Your task to perform on an android device: Show me popular games on the Play Store Image 0: 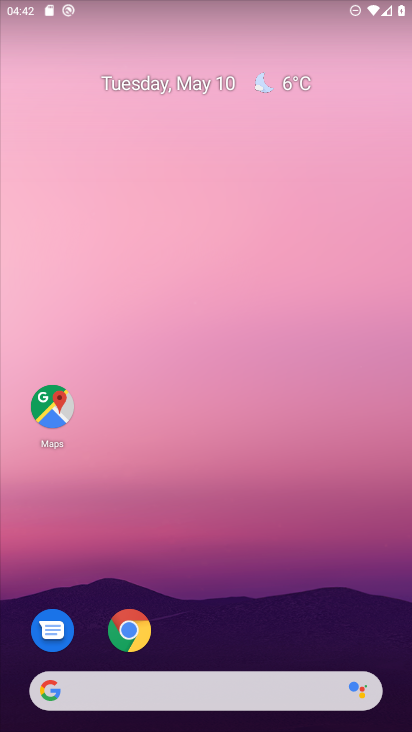
Step 0: drag from (241, 636) to (410, 118)
Your task to perform on an android device: Show me popular games on the Play Store Image 1: 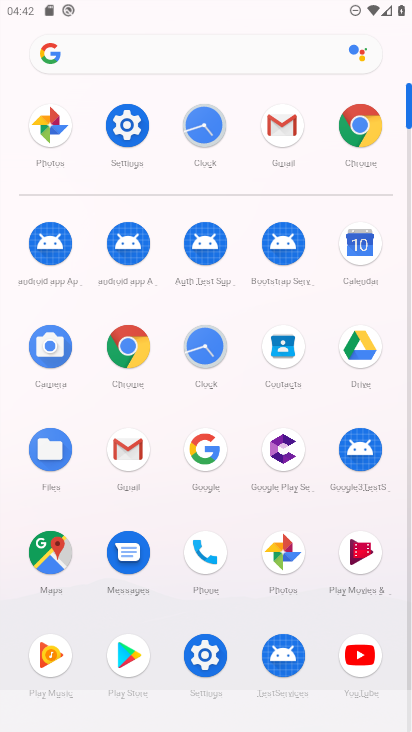
Step 1: click (128, 665)
Your task to perform on an android device: Show me popular games on the Play Store Image 2: 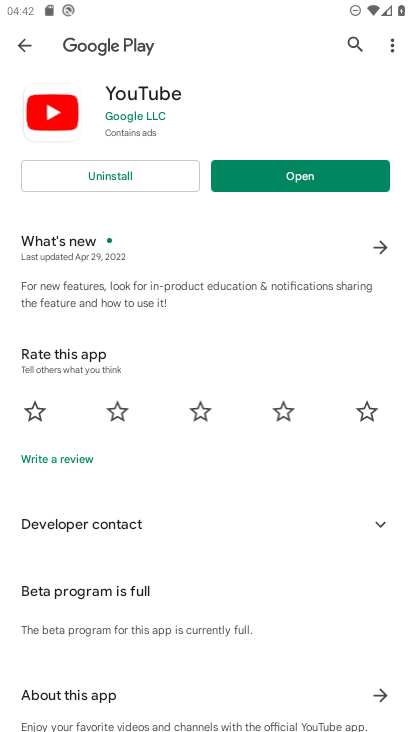
Step 2: click (33, 51)
Your task to perform on an android device: Show me popular games on the Play Store Image 3: 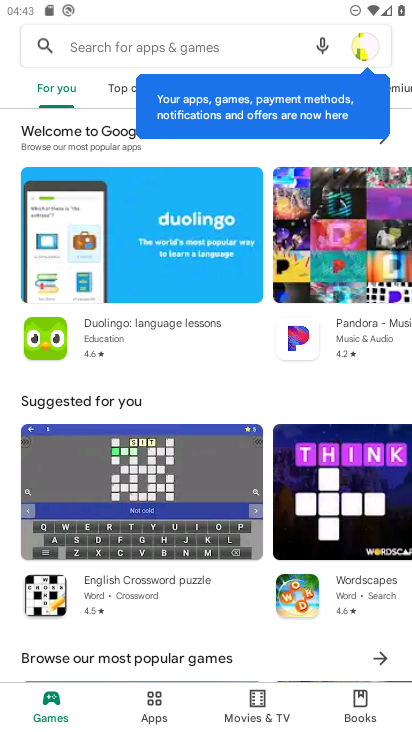
Step 3: click (239, 394)
Your task to perform on an android device: Show me popular games on the Play Store Image 4: 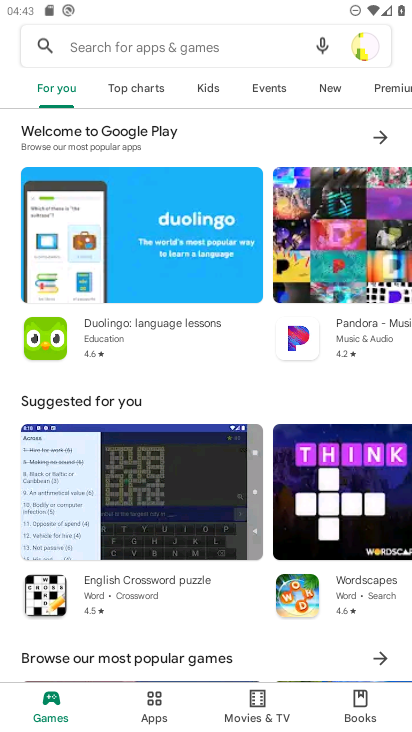
Step 4: click (153, 95)
Your task to perform on an android device: Show me popular games on the Play Store Image 5: 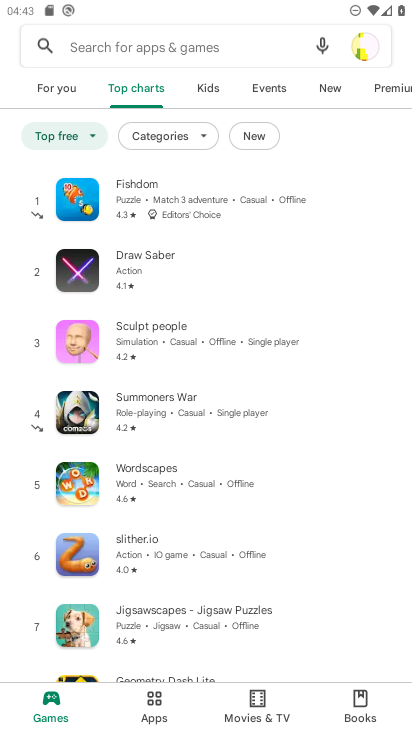
Step 5: task complete